Your task to perform on an android device: Go to settings Image 0: 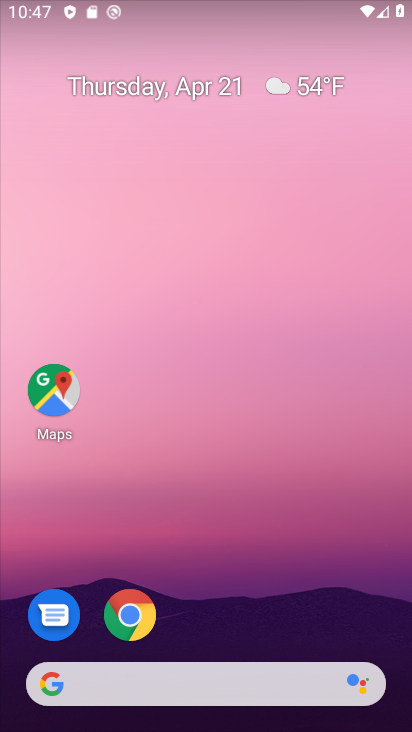
Step 0: drag from (267, 618) to (292, 243)
Your task to perform on an android device: Go to settings Image 1: 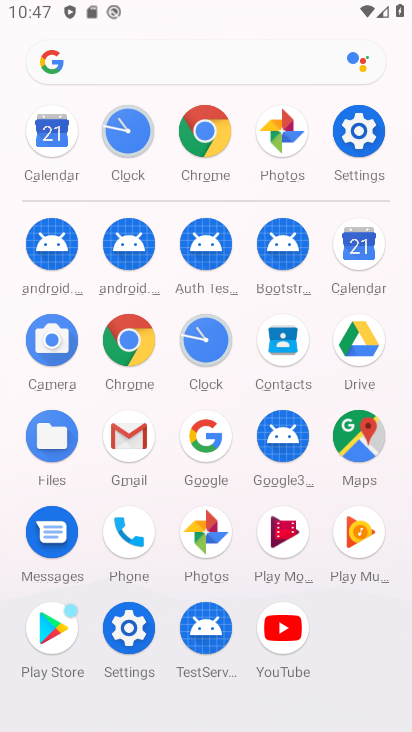
Step 1: click (120, 629)
Your task to perform on an android device: Go to settings Image 2: 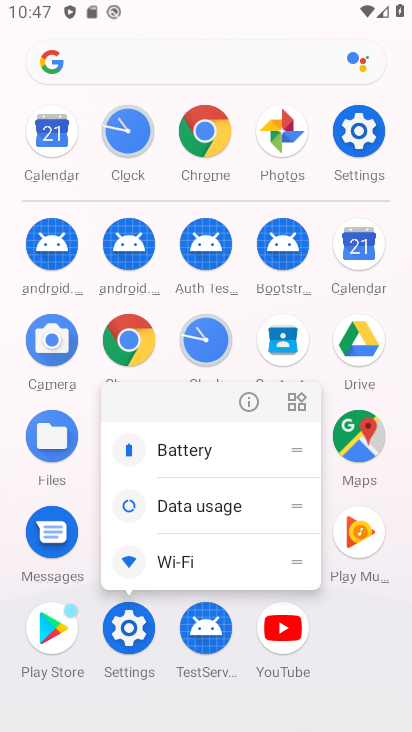
Step 2: click (120, 629)
Your task to perform on an android device: Go to settings Image 3: 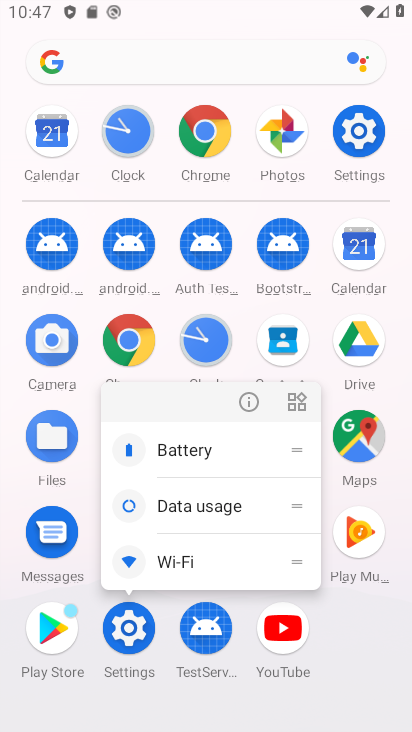
Step 3: click (120, 629)
Your task to perform on an android device: Go to settings Image 4: 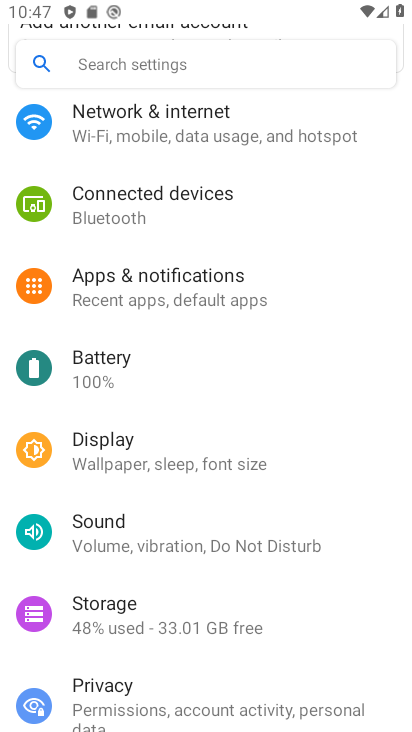
Step 4: task complete